Your task to perform on an android device: toggle data saver in the chrome app Image 0: 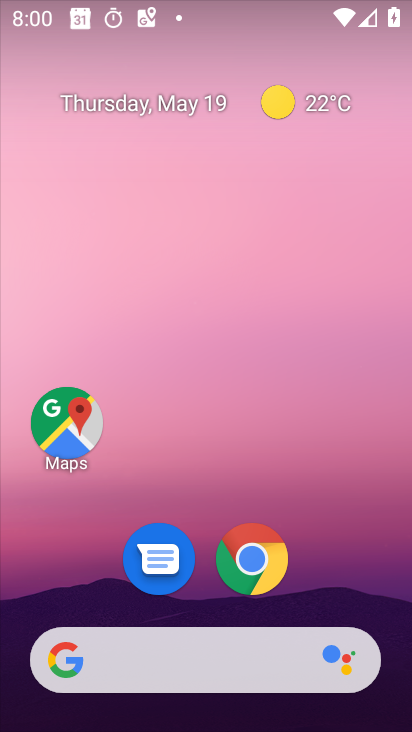
Step 0: click (263, 551)
Your task to perform on an android device: toggle data saver in the chrome app Image 1: 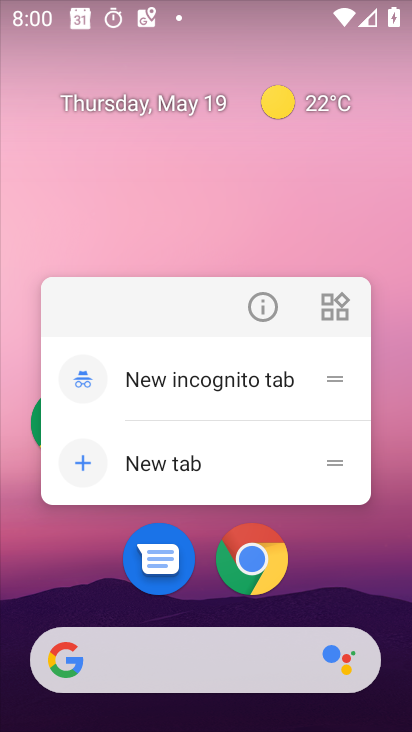
Step 1: click (238, 569)
Your task to perform on an android device: toggle data saver in the chrome app Image 2: 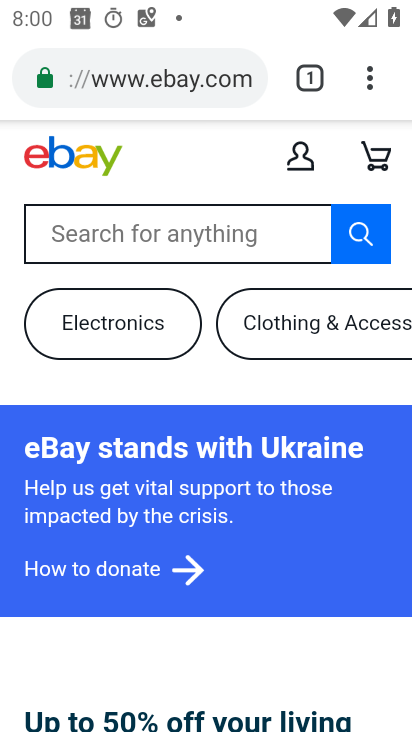
Step 2: click (368, 68)
Your task to perform on an android device: toggle data saver in the chrome app Image 3: 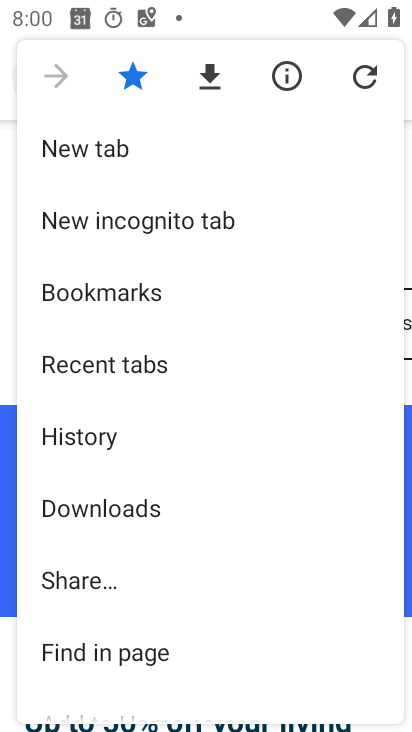
Step 3: drag from (275, 614) to (270, 208)
Your task to perform on an android device: toggle data saver in the chrome app Image 4: 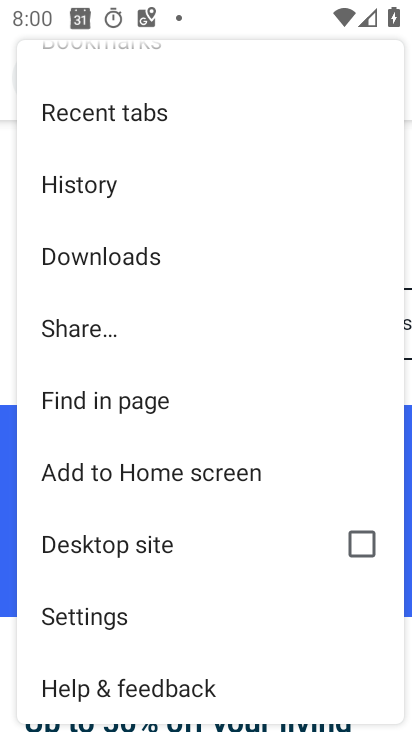
Step 4: click (146, 617)
Your task to perform on an android device: toggle data saver in the chrome app Image 5: 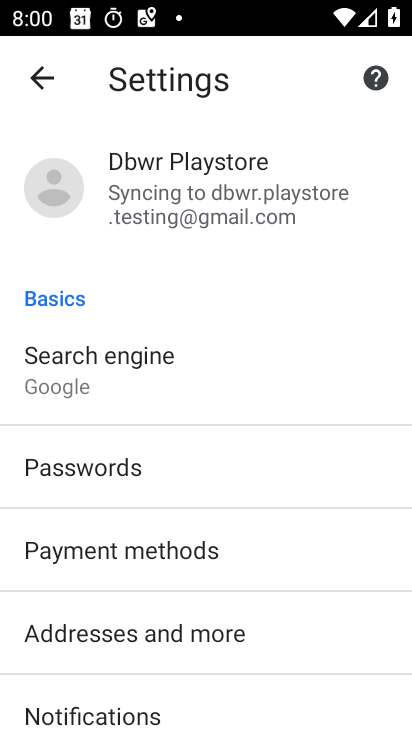
Step 5: drag from (155, 662) to (252, 190)
Your task to perform on an android device: toggle data saver in the chrome app Image 6: 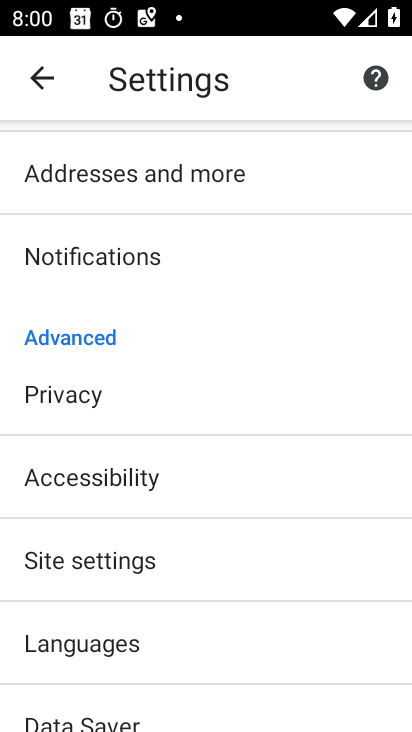
Step 6: click (93, 697)
Your task to perform on an android device: toggle data saver in the chrome app Image 7: 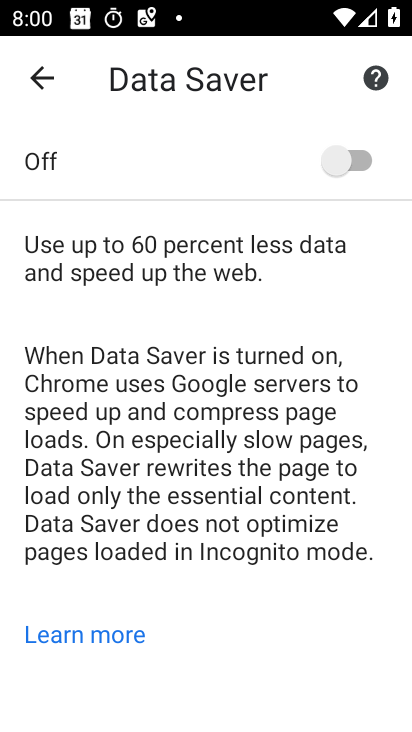
Step 7: click (328, 168)
Your task to perform on an android device: toggle data saver in the chrome app Image 8: 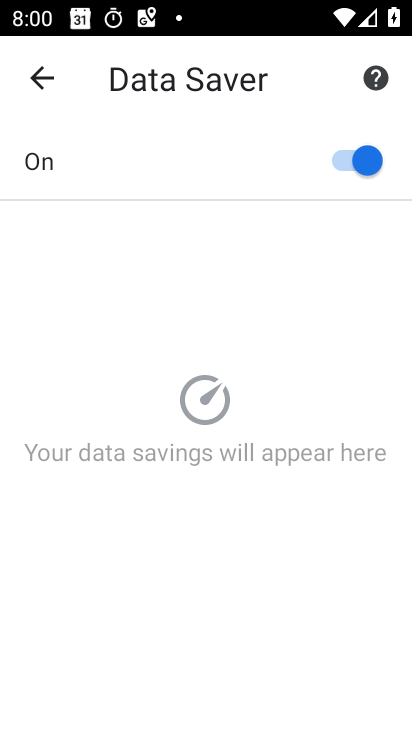
Step 8: task complete